Your task to perform on an android device: Go to ESPN.com Image 0: 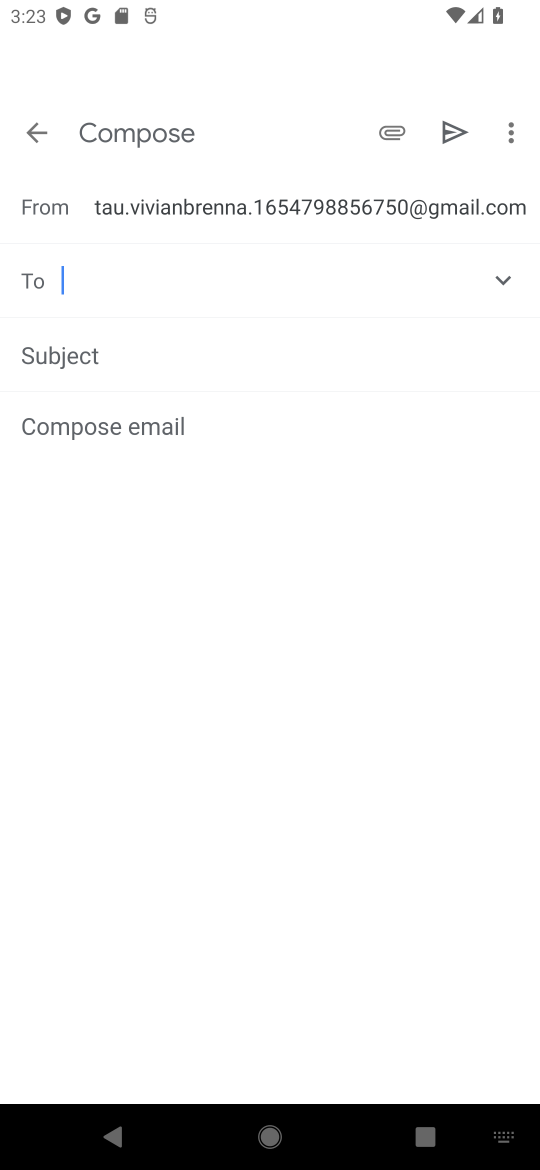
Step 0: press back button
Your task to perform on an android device: Go to ESPN.com Image 1: 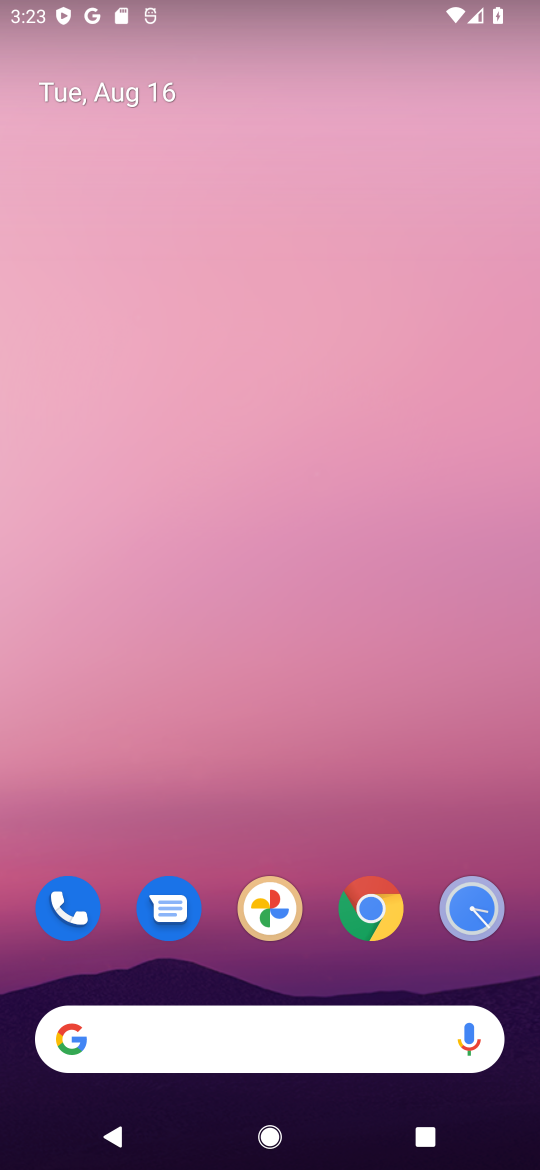
Step 1: click (375, 899)
Your task to perform on an android device: Go to ESPN.com Image 2: 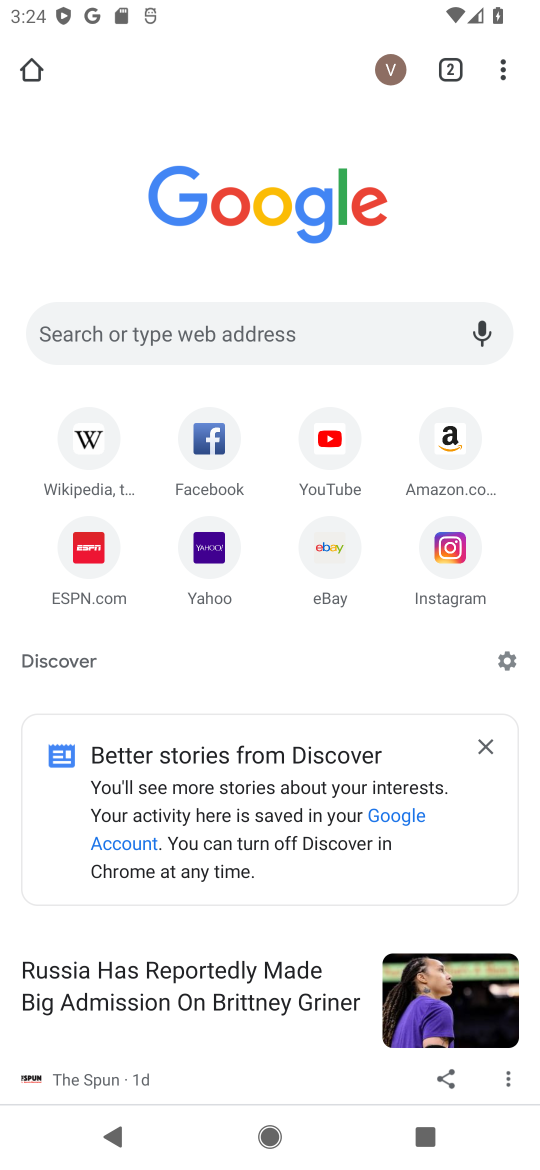
Step 2: click (75, 562)
Your task to perform on an android device: Go to ESPN.com Image 3: 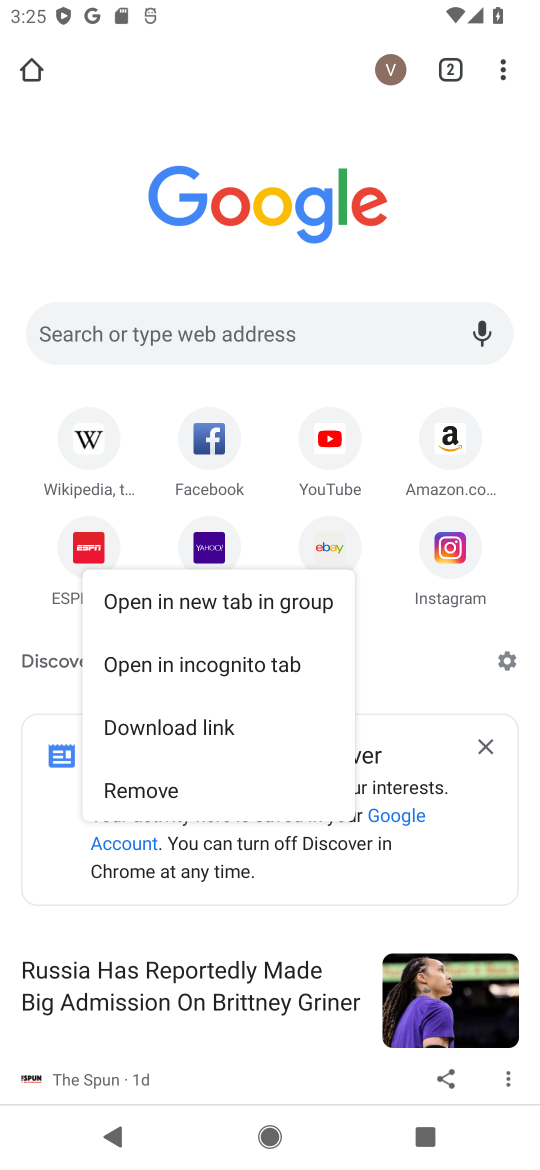
Step 3: click (76, 549)
Your task to perform on an android device: Go to ESPN.com Image 4: 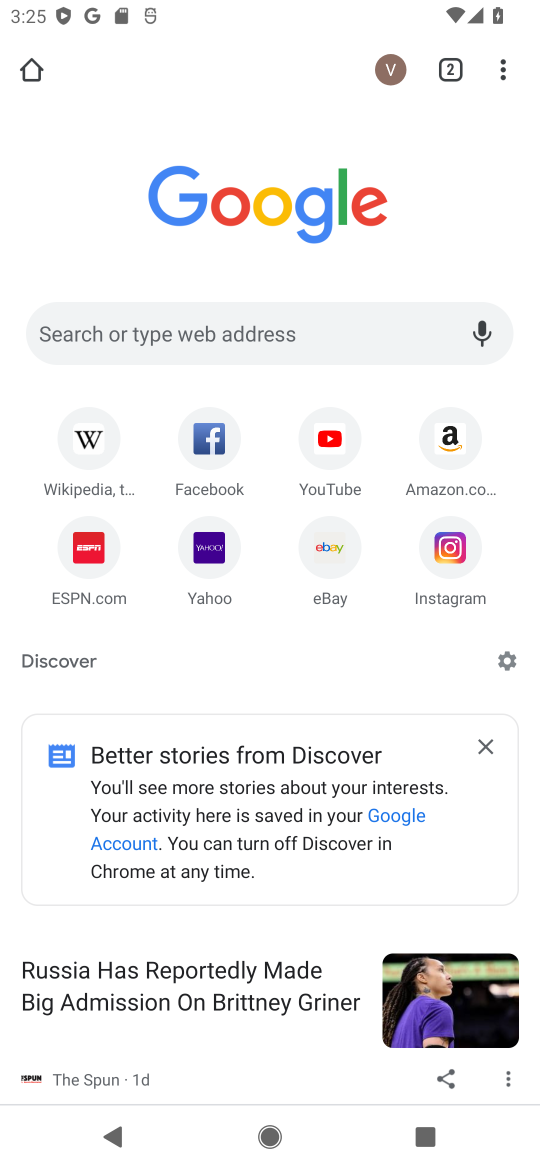
Step 4: click (86, 540)
Your task to perform on an android device: Go to ESPN.com Image 5: 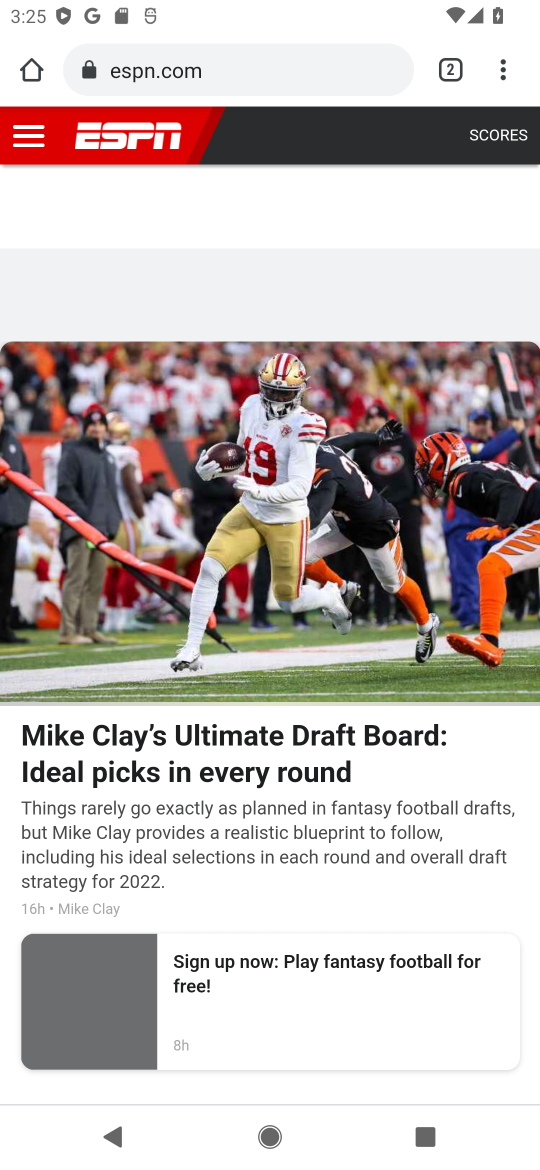
Step 5: task complete